Your task to perform on an android device: change notifications settings Image 0: 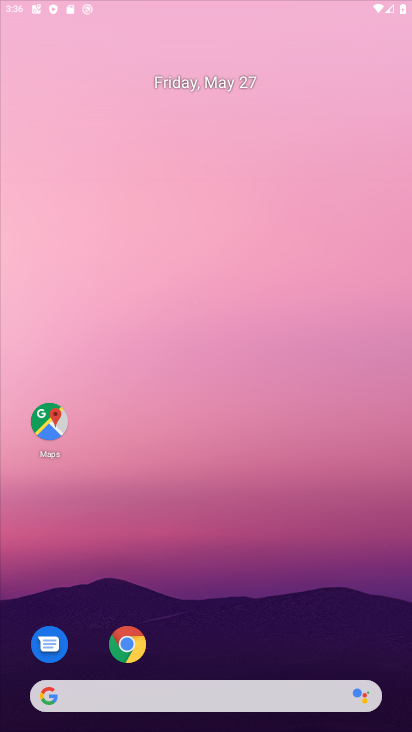
Step 0: drag from (259, 581) to (187, 66)
Your task to perform on an android device: change notifications settings Image 1: 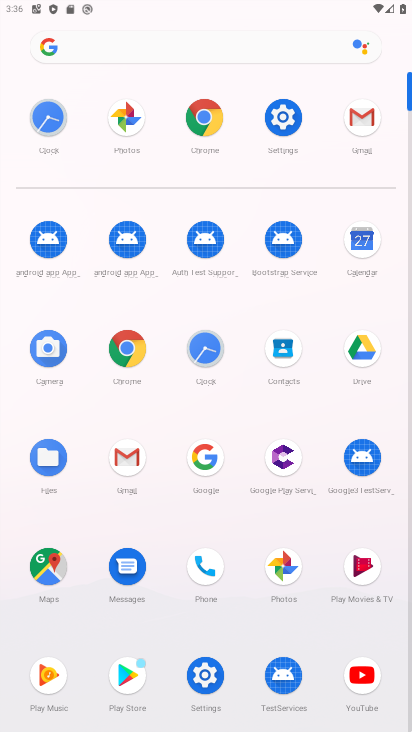
Step 1: click (291, 116)
Your task to perform on an android device: change notifications settings Image 2: 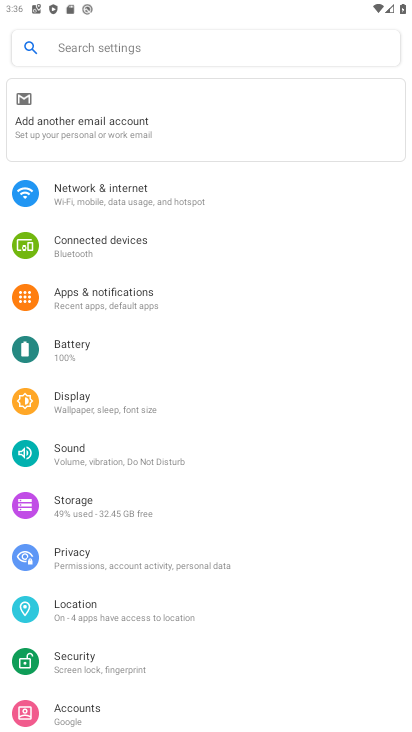
Step 2: click (147, 299)
Your task to perform on an android device: change notifications settings Image 3: 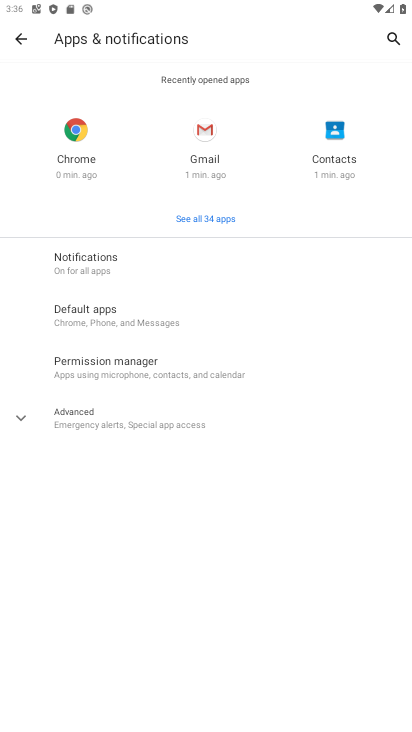
Step 3: click (167, 264)
Your task to perform on an android device: change notifications settings Image 4: 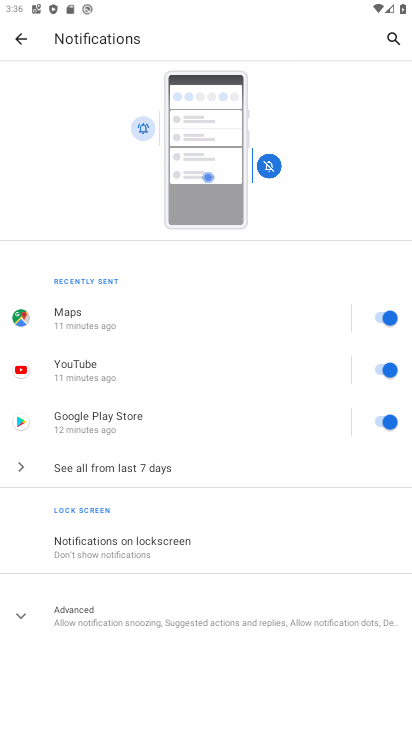
Step 4: click (381, 324)
Your task to perform on an android device: change notifications settings Image 5: 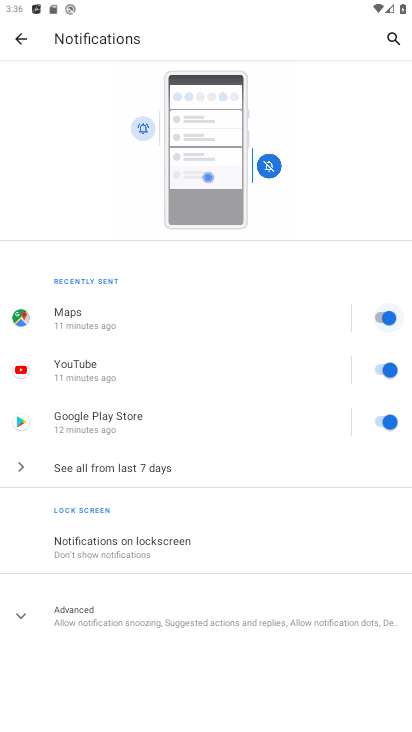
Step 5: click (393, 364)
Your task to perform on an android device: change notifications settings Image 6: 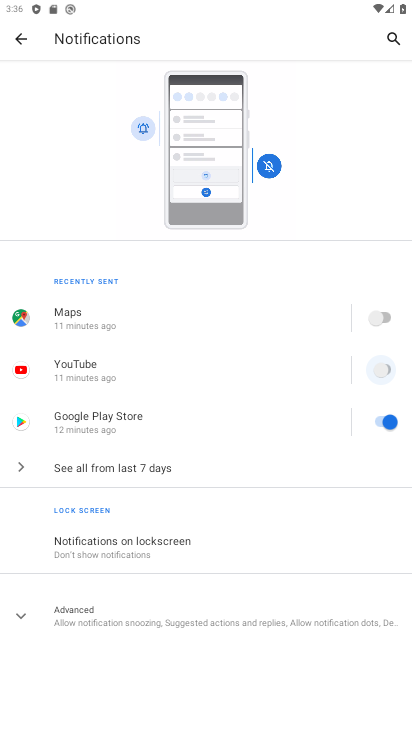
Step 6: click (388, 427)
Your task to perform on an android device: change notifications settings Image 7: 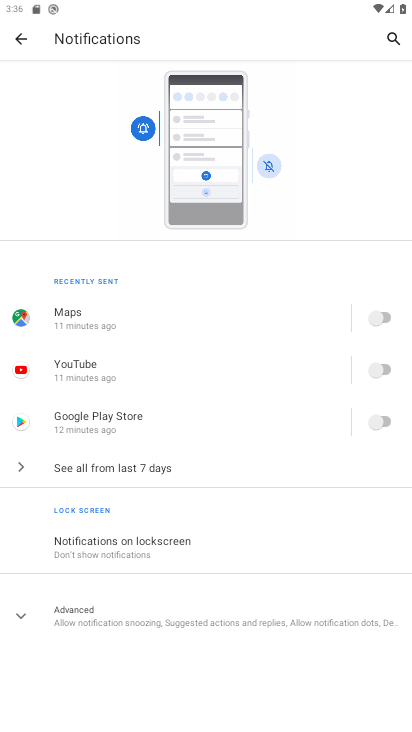
Step 7: task complete